Your task to perform on an android device: open sync settings in chrome Image 0: 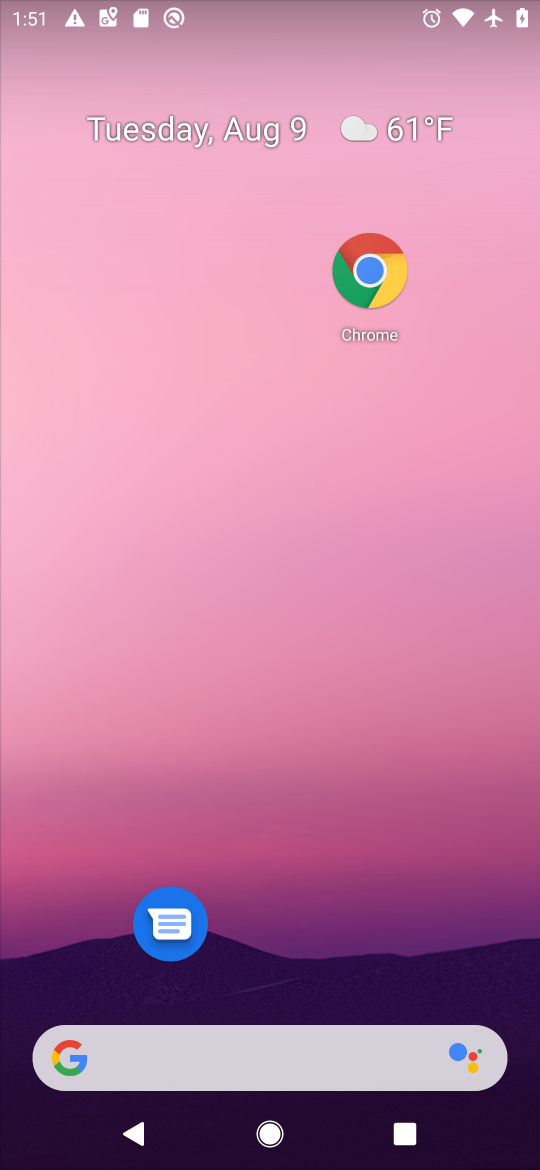
Step 0: drag from (379, 1008) to (361, 311)
Your task to perform on an android device: open sync settings in chrome Image 1: 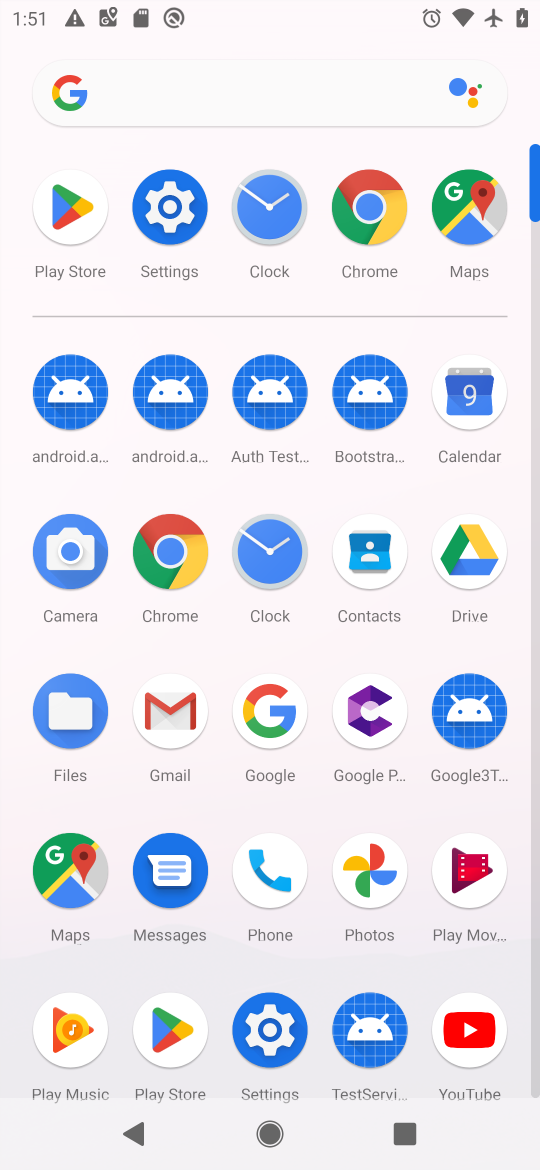
Step 1: click (164, 585)
Your task to perform on an android device: open sync settings in chrome Image 2: 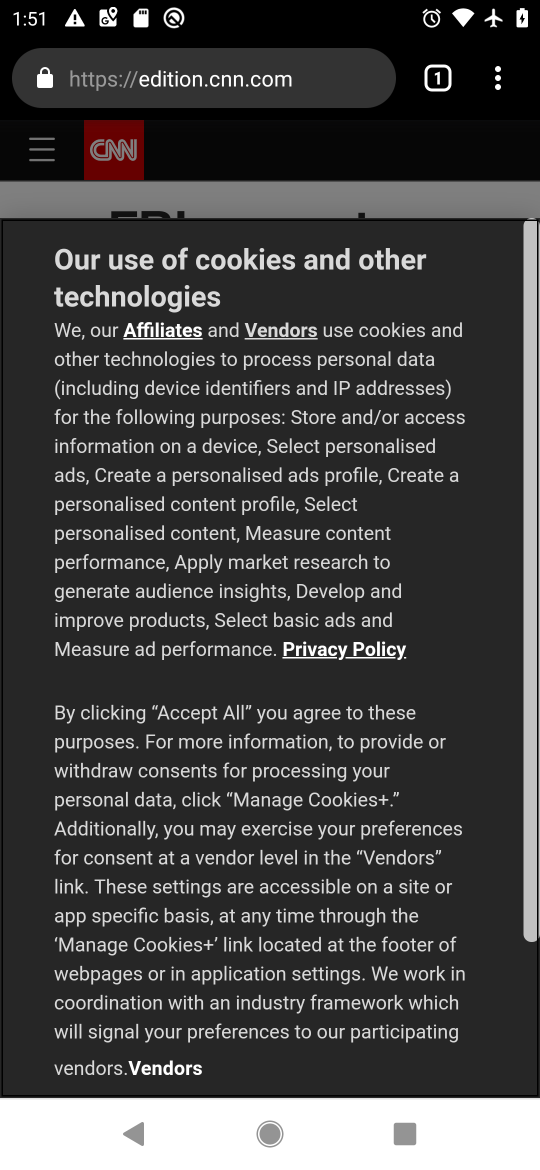
Step 2: click (490, 87)
Your task to perform on an android device: open sync settings in chrome Image 3: 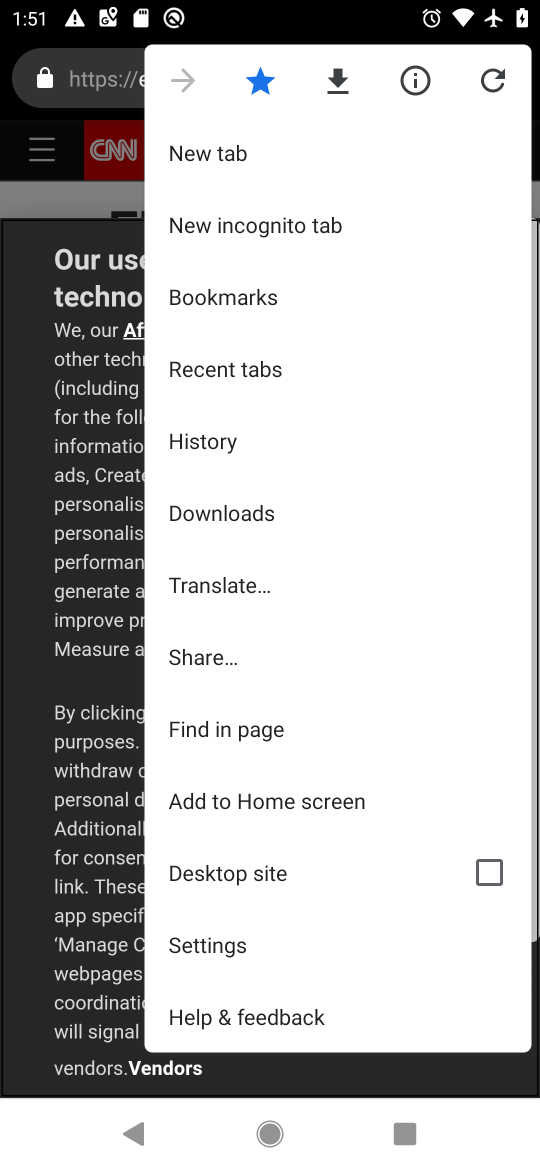
Step 3: click (309, 936)
Your task to perform on an android device: open sync settings in chrome Image 4: 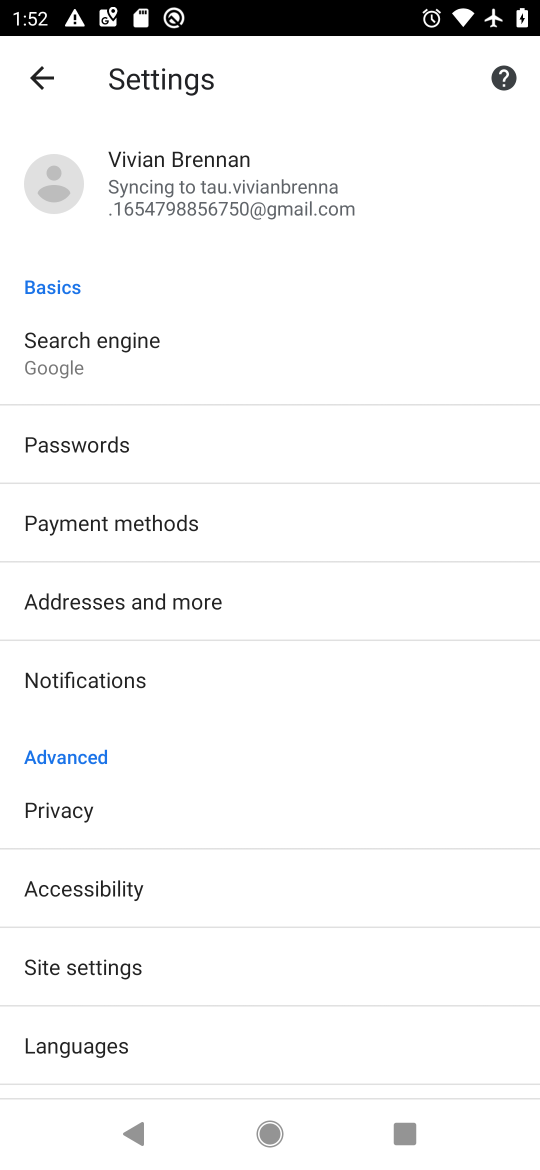
Step 4: click (130, 955)
Your task to perform on an android device: open sync settings in chrome Image 5: 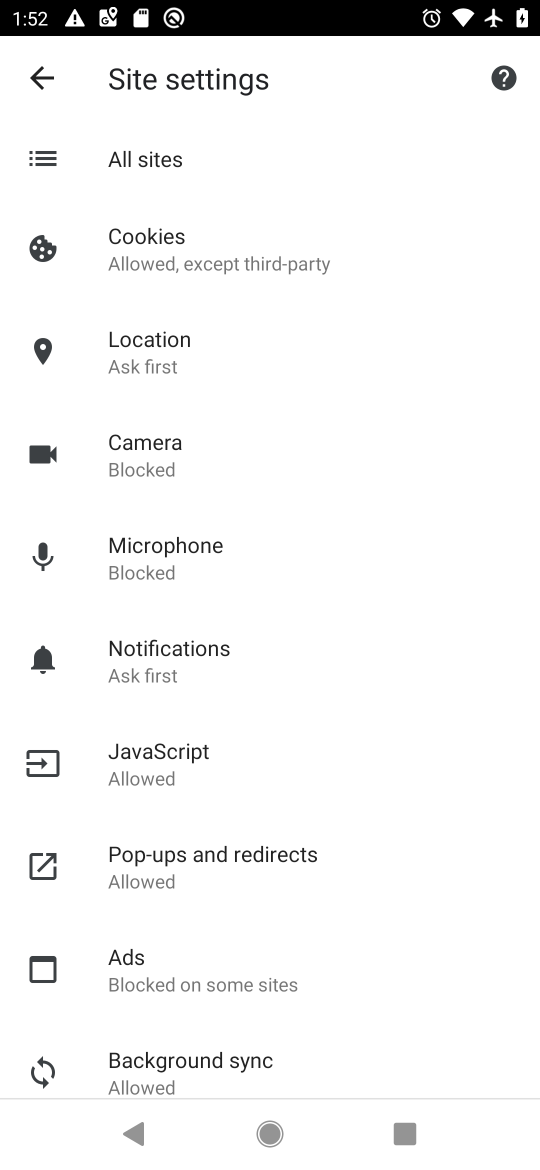
Step 5: task complete